Your task to perform on an android device: Go to location settings Image 0: 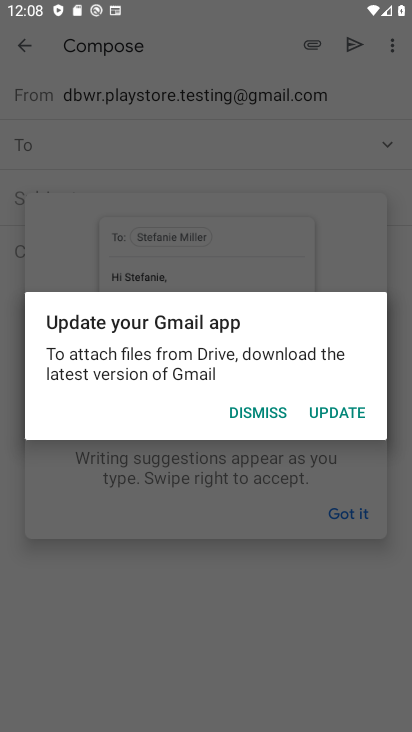
Step 0: press home button
Your task to perform on an android device: Go to location settings Image 1: 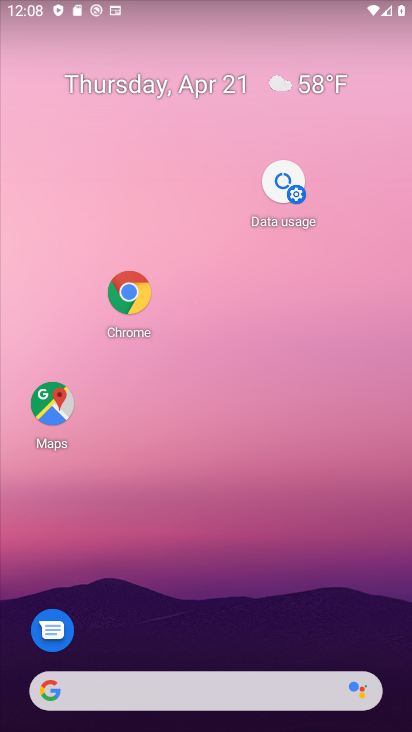
Step 1: drag from (225, 628) to (225, 196)
Your task to perform on an android device: Go to location settings Image 2: 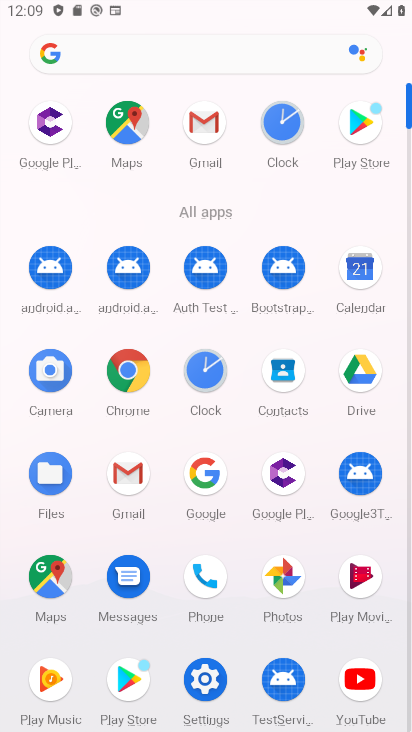
Step 2: click (206, 685)
Your task to perform on an android device: Go to location settings Image 3: 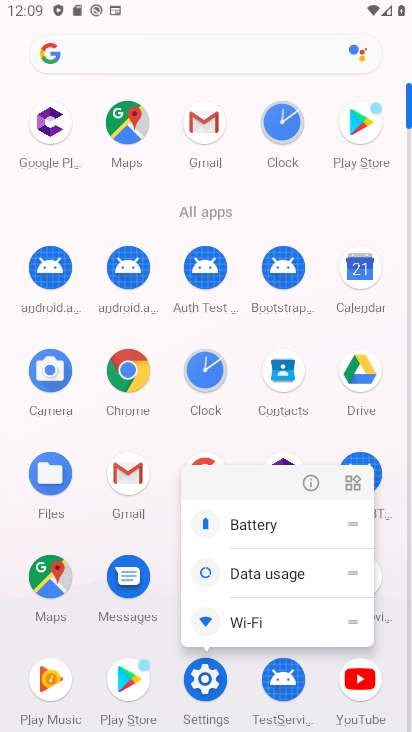
Step 3: click (209, 684)
Your task to perform on an android device: Go to location settings Image 4: 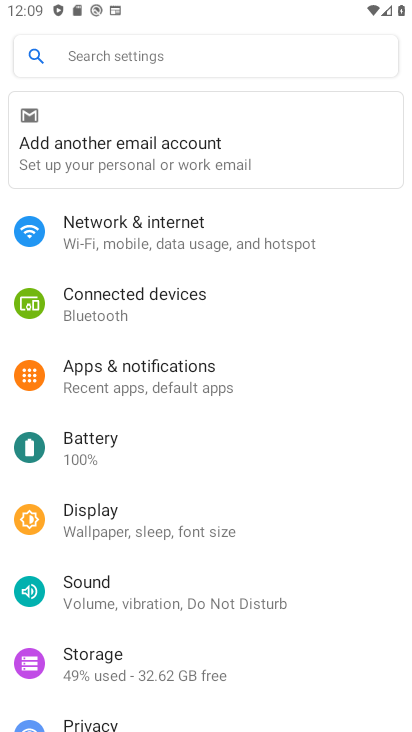
Step 4: drag from (140, 701) to (154, 210)
Your task to perform on an android device: Go to location settings Image 5: 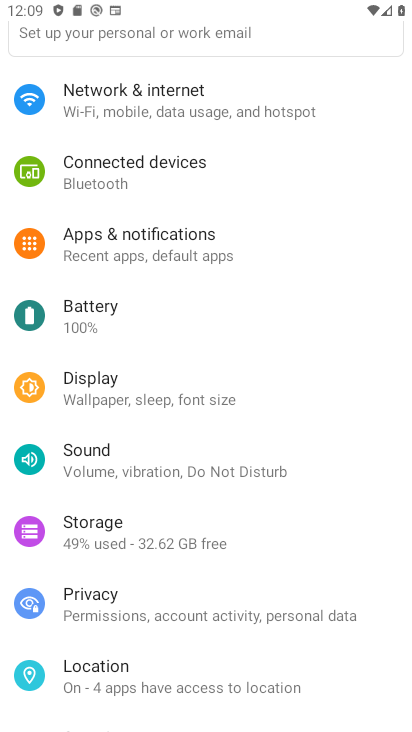
Step 5: click (91, 676)
Your task to perform on an android device: Go to location settings Image 6: 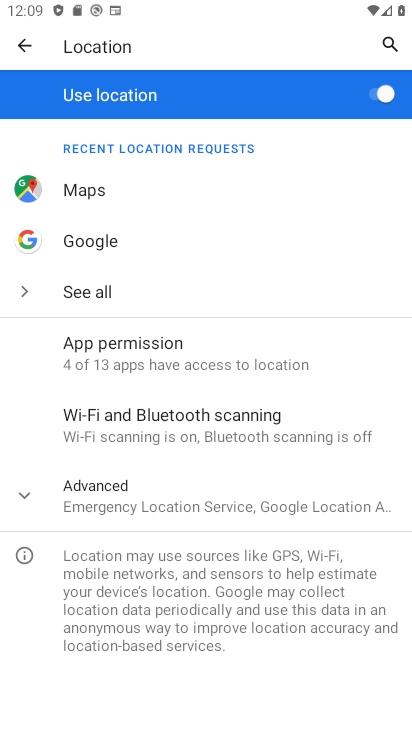
Step 6: click (119, 485)
Your task to perform on an android device: Go to location settings Image 7: 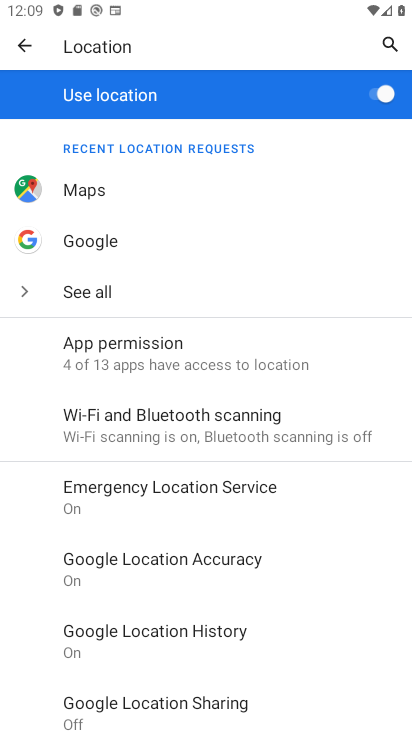
Step 7: task complete